Your task to perform on an android device: allow cookies in the chrome app Image 0: 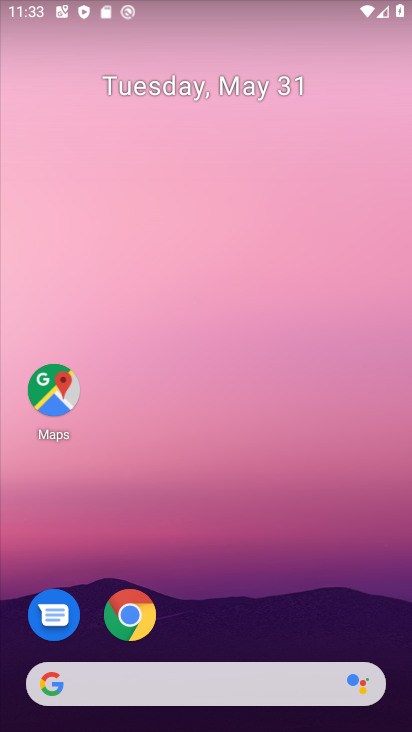
Step 0: task complete